Your task to perform on an android device: Do I have any events tomorrow? Image 0: 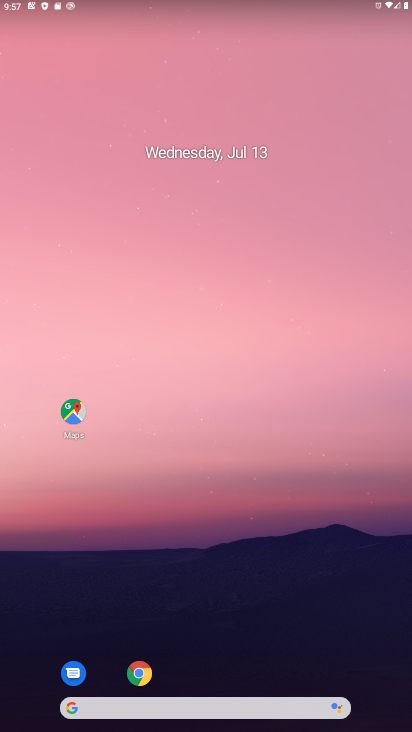
Step 0: click (205, 160)
Your task to perform on an android device: Do I have any events tomorrow? Image 1: 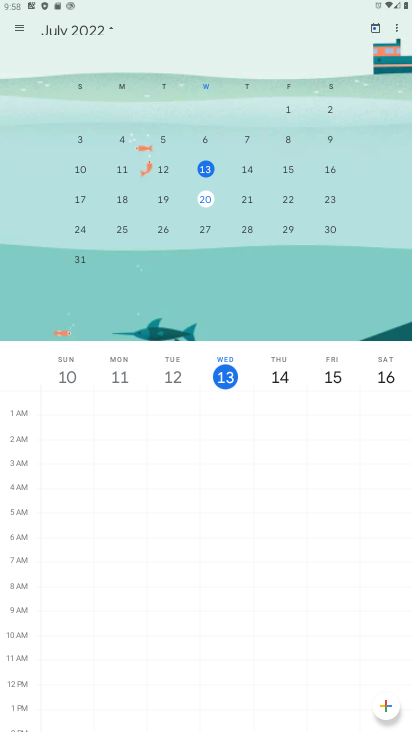
Step 1: click (241, 167)
Your task to perform on an android device: Do I have any events tomorrow? Image 2: 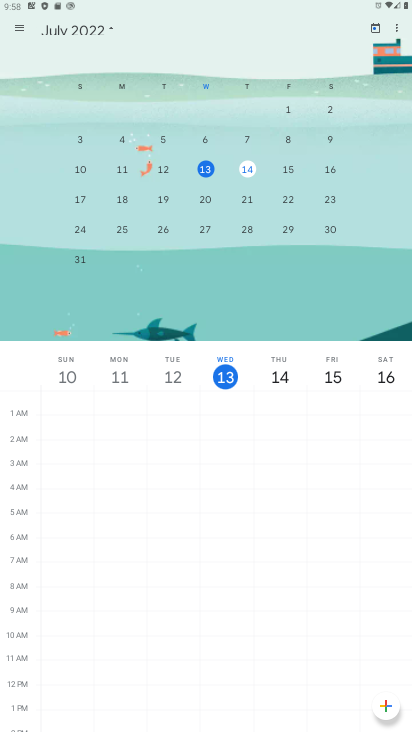
Step 2: task complete